Your task to perform on an android device: Open battery settings Image 0: 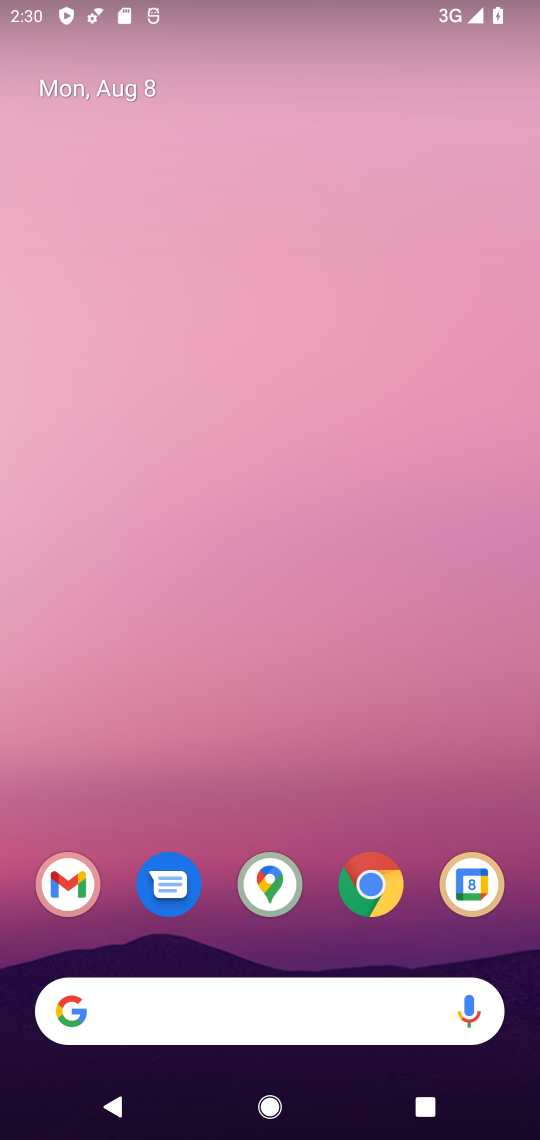
Step 0: drag from (320, 766) to (219, 95)
Your task to perform on an android device: Open battery settings Image 1: 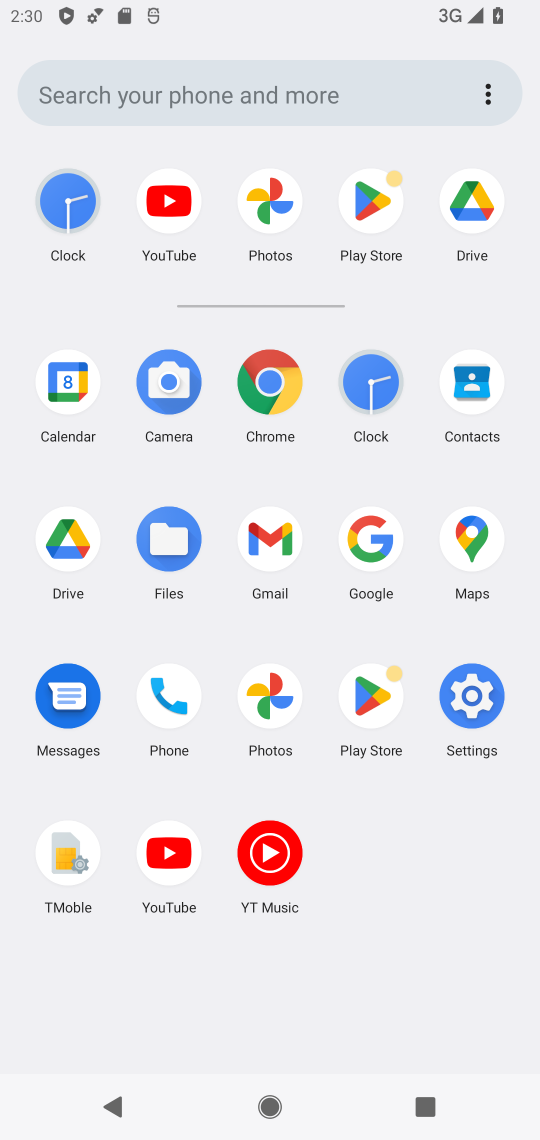
Step 1: click (471, 691)
Your task to perform on an android device: Open battery settings Image 2: 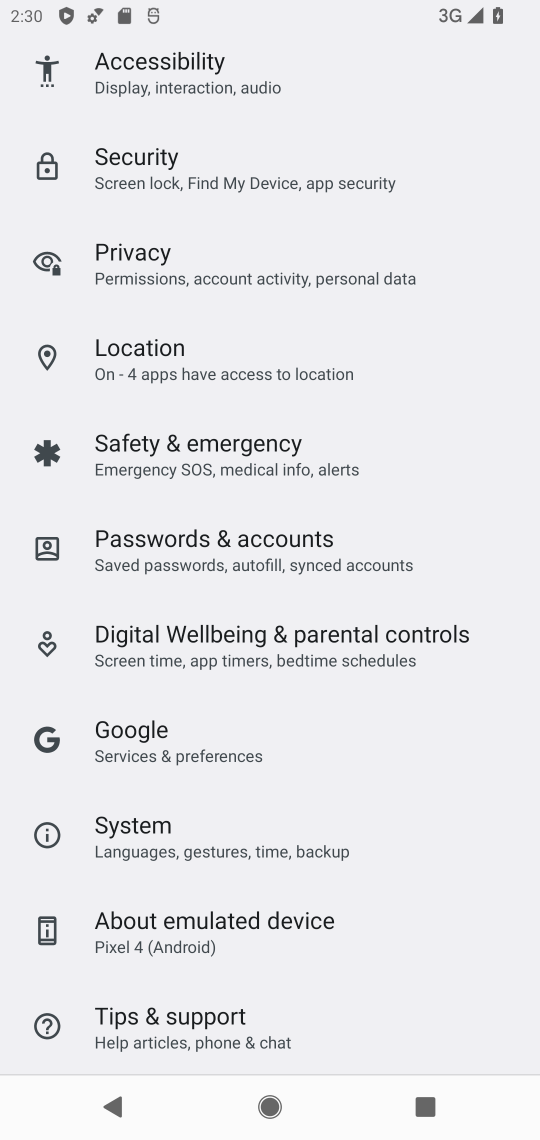
Step 2: drag from (401, 101) to (319, 634)
Your task to perform on an android device: Open battery settings Image 3: 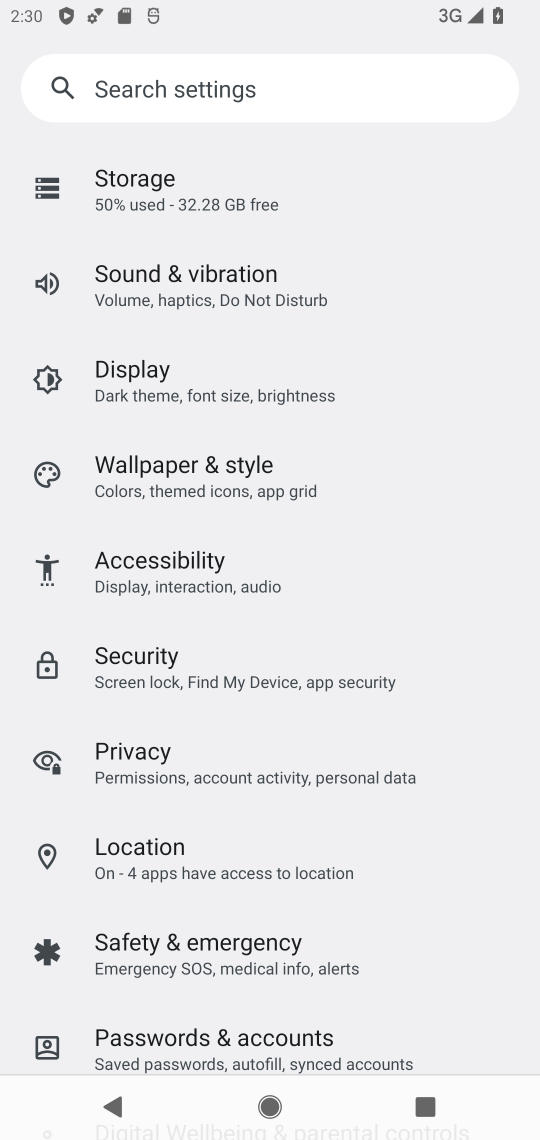
Step 3: drag from (391, 279) to (368, 893)
Your task to perform on an android device: Open battery settings Image 4: 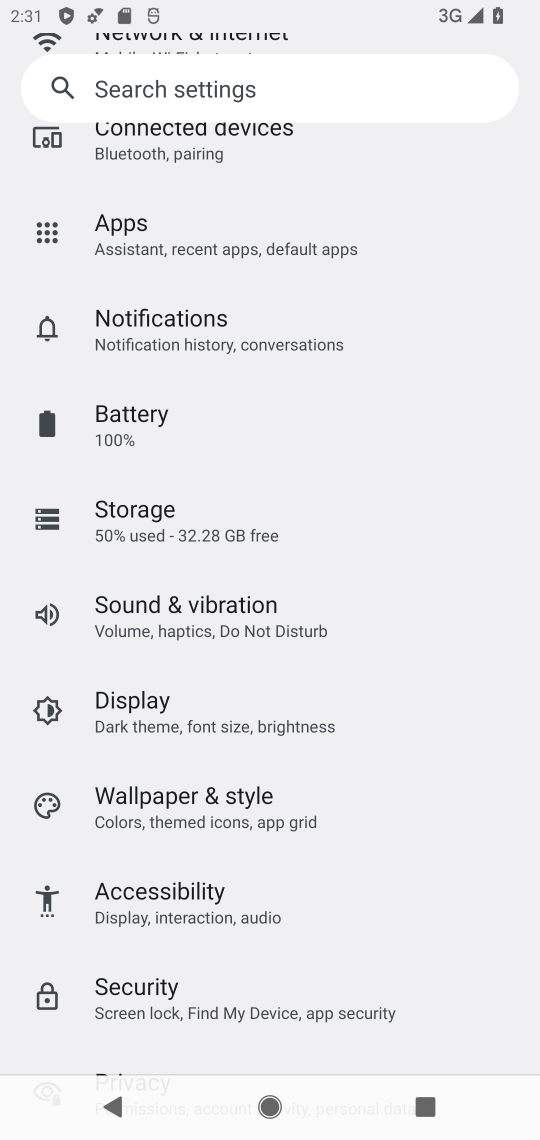
Step 4: click (120, 408)
Your task to perform on an android device: Open battery settings Image 5: 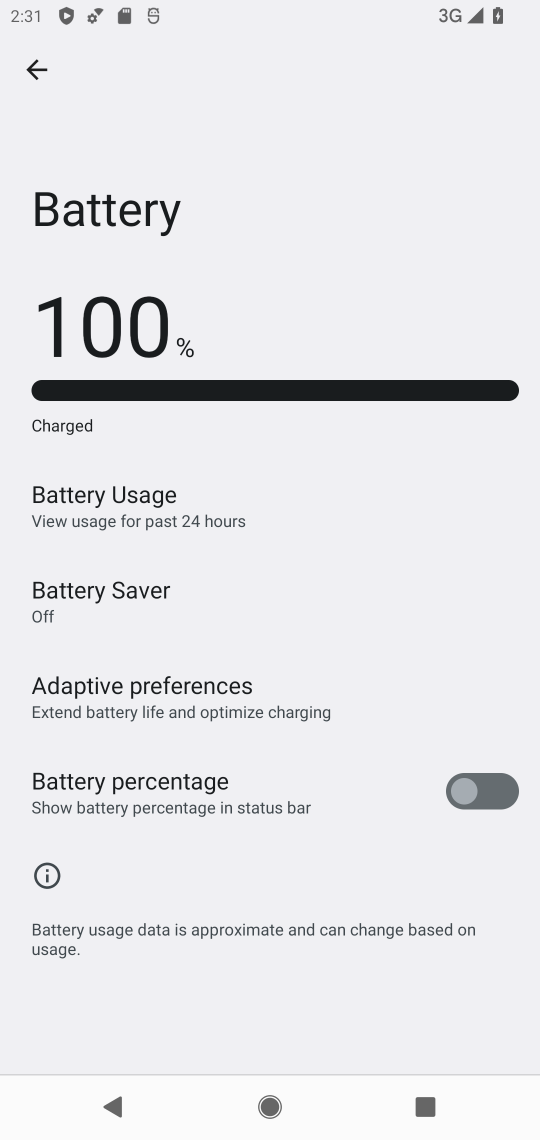
Step 5: task complete